Your task to perform on an android device: turn on showing notifications on the lock screen Image 0: 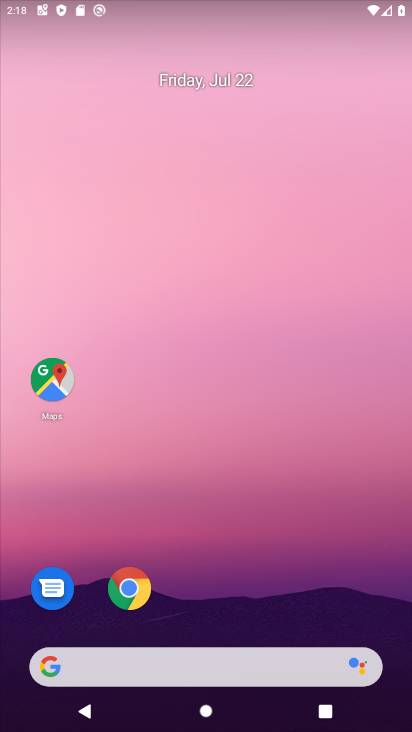
Step 0: press home button
Your task to perform on an android device: turn on showing notifications on the lock screen Image 1: 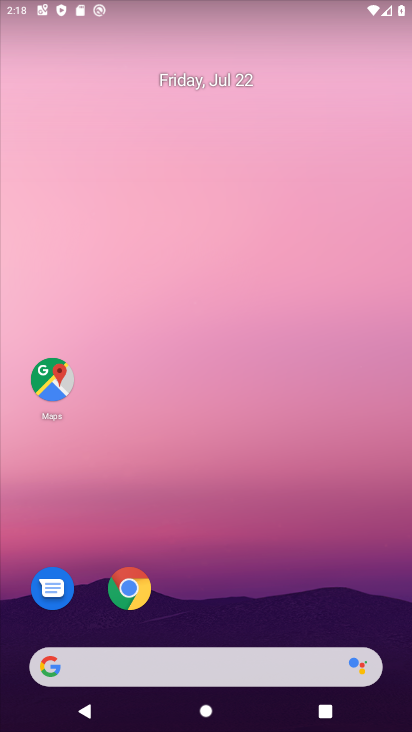
Step 1: click (220, 38)
Your task to perform on an android device: turn on showing notifications on the lock screen Image 2: 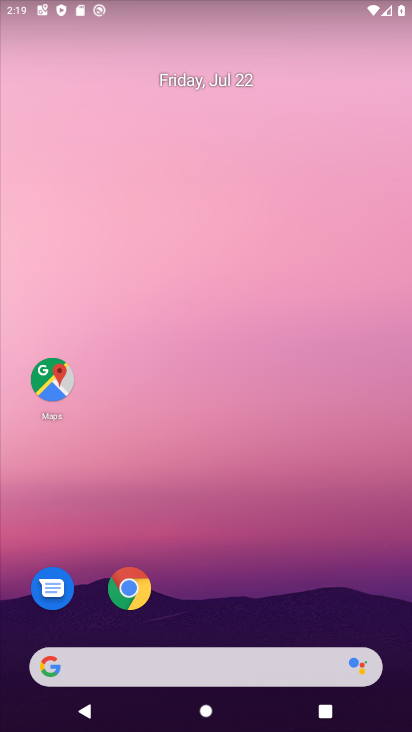
Step 2: drag from (234, 623) to (229, 65)
Your task to perform on an android device: turn on showing notifications on the lock screen Image 3: 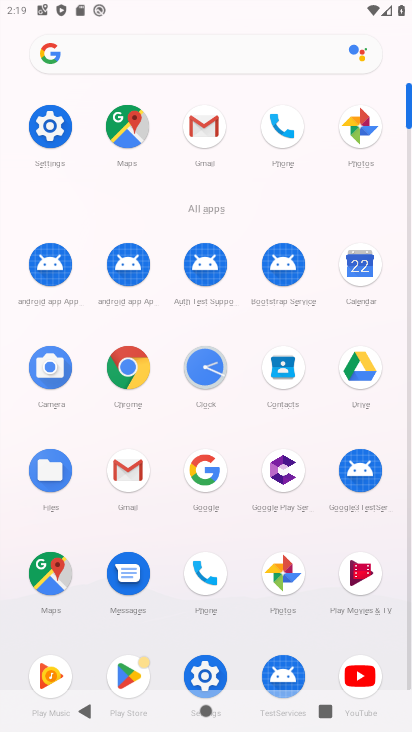
Step 3: click (51, 120)
Your task to perform on an android device: turn on showing notifications on the lock screen Image 4: 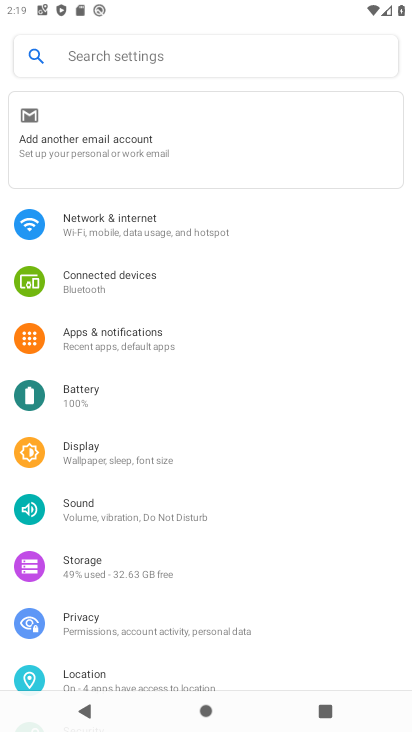
Step 4: click (149, 334)
Your task to perform on an android device: turn on showing notifications on the lock screen Image 5: 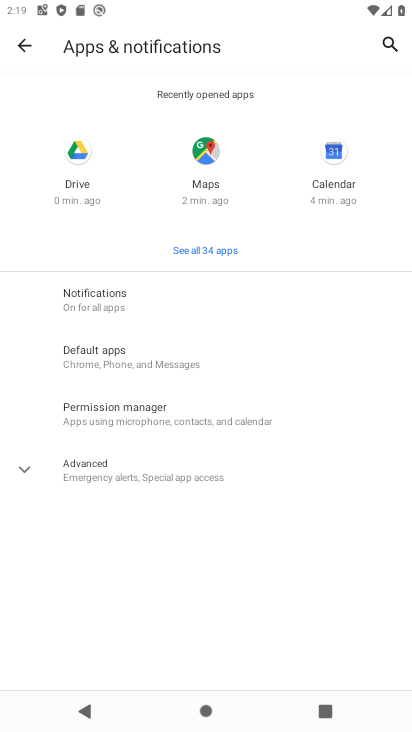
Step 5: click (137, 298)
Your task to perform on an android device: turn on showing notifications on the lock screen Image 6: 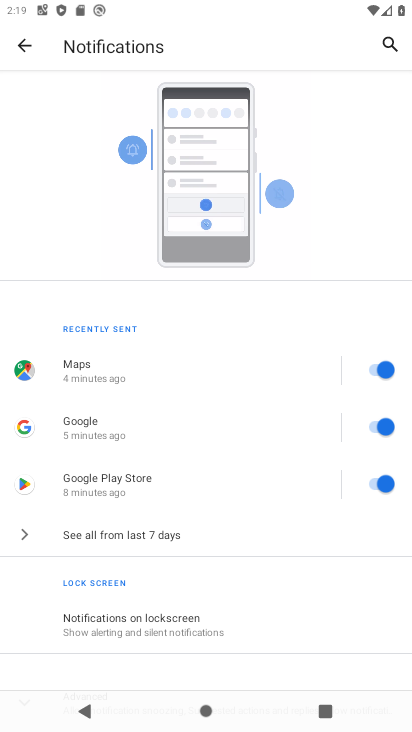
Step 6: click (224, 616)
Your task to perform on an android device: turn on showing notifications on the lock screen Image 7: 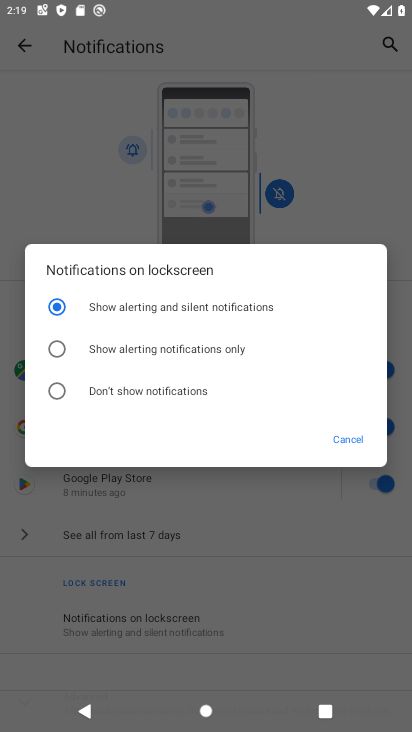
Step 7: click (58, 341)
Your task to perform on an android device: turn on showing notifications on the lock screen Image 8: 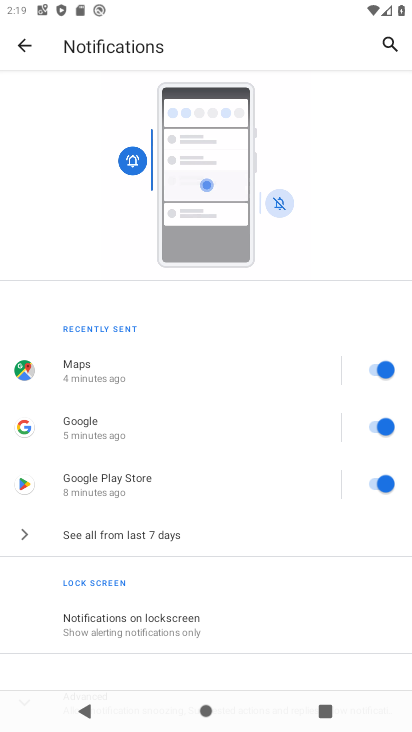
Step 8: task complete